Your task to perform on an android device: open app "Google Calendar" (install if not already installed) Image 0: 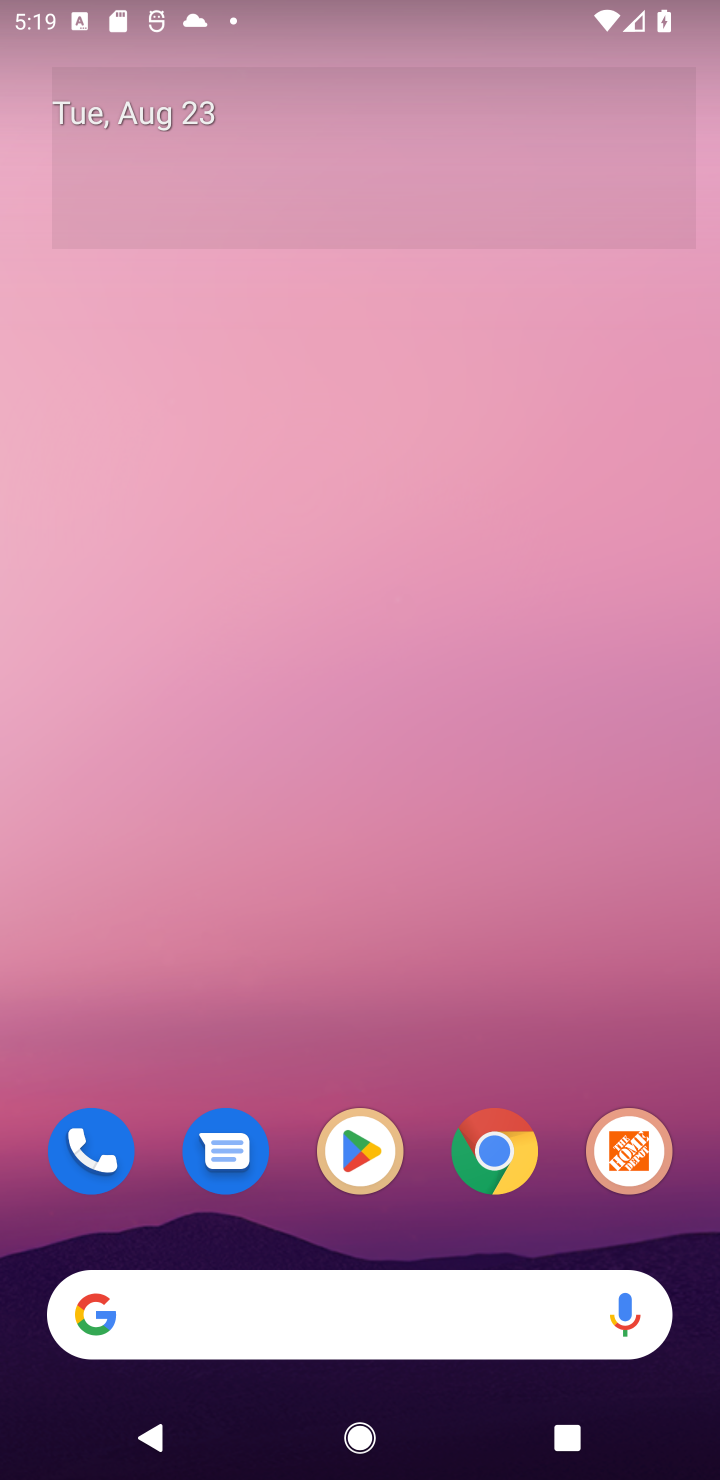
Step 0: press home button
Your task to perform on an android device: open app "Google Calendar" (install if not already installed) Image 1: 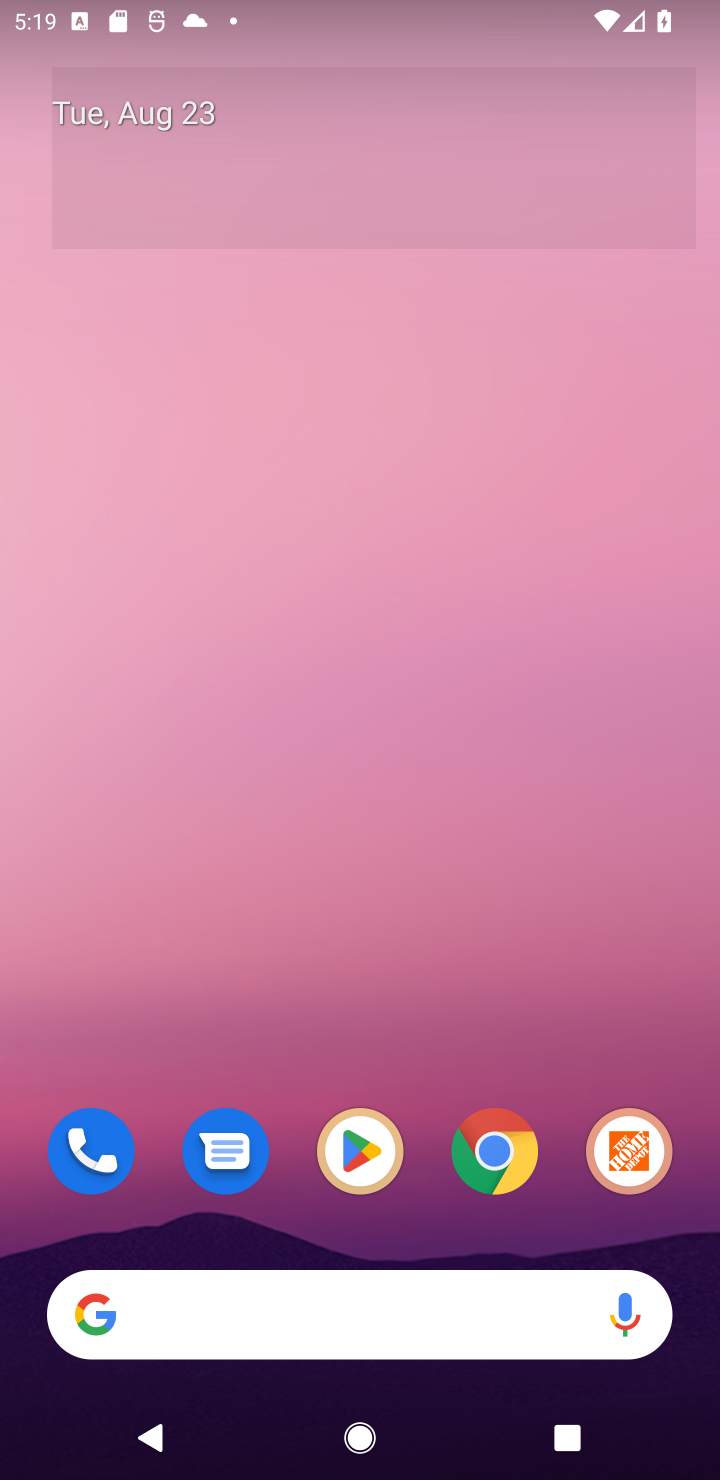
Step 1: click (366, 1160)
Your task to perform on an android device: open app "Google Calendar" (install if not already installed) Image 2: 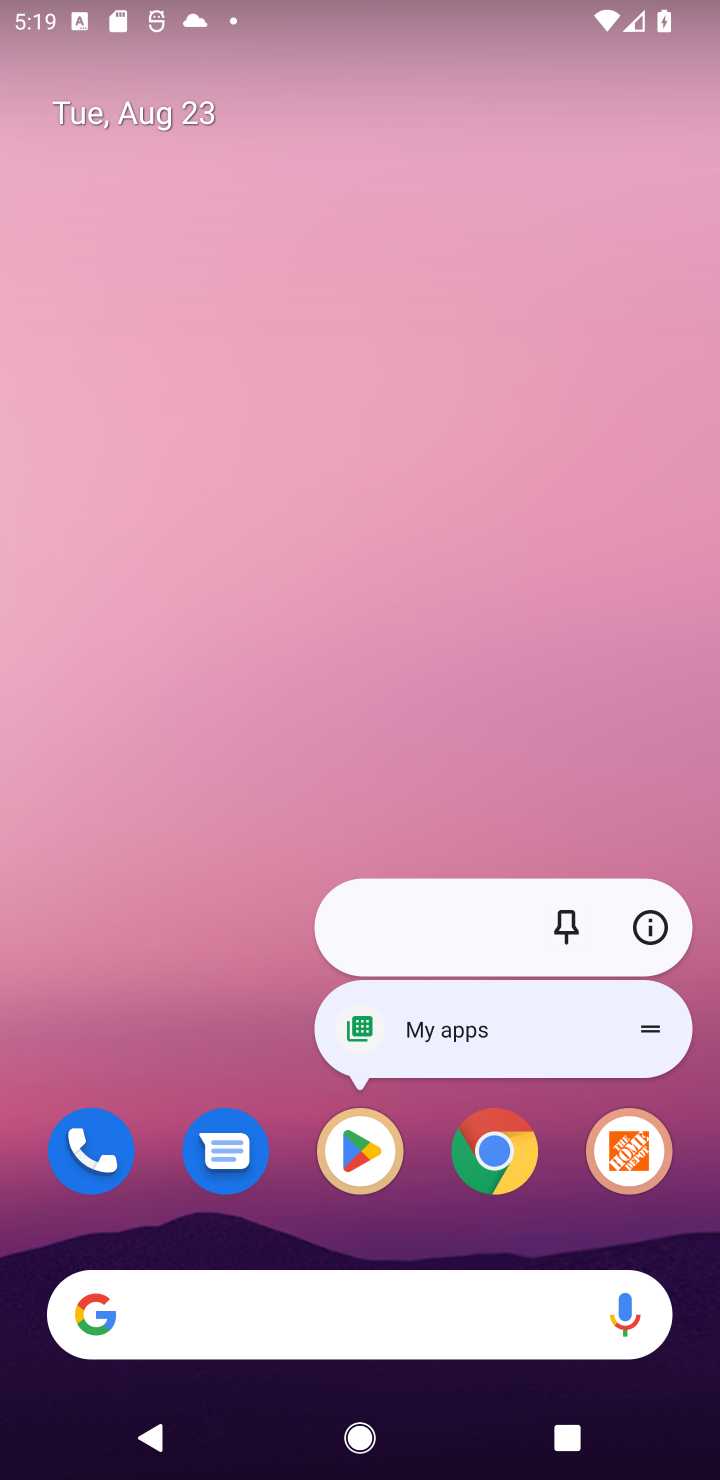
Step 2: click (366, 1163)
Your task to perform on an android device: open app "Google Calendar" (install if not already installed) Image 3: 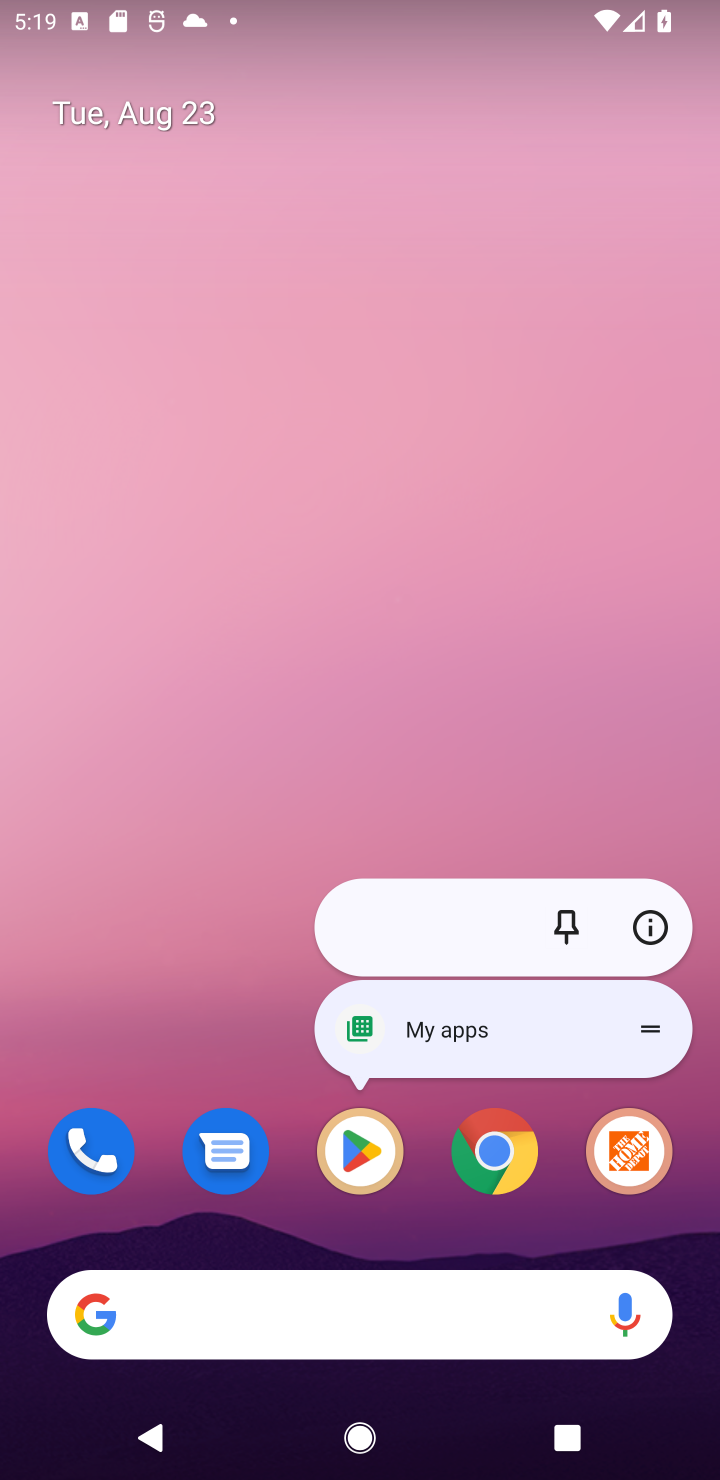
Step 3: click (353, 1163)
Your task to perform on an android device: open app "Google Calendar" (install if not already installed) Image 4: 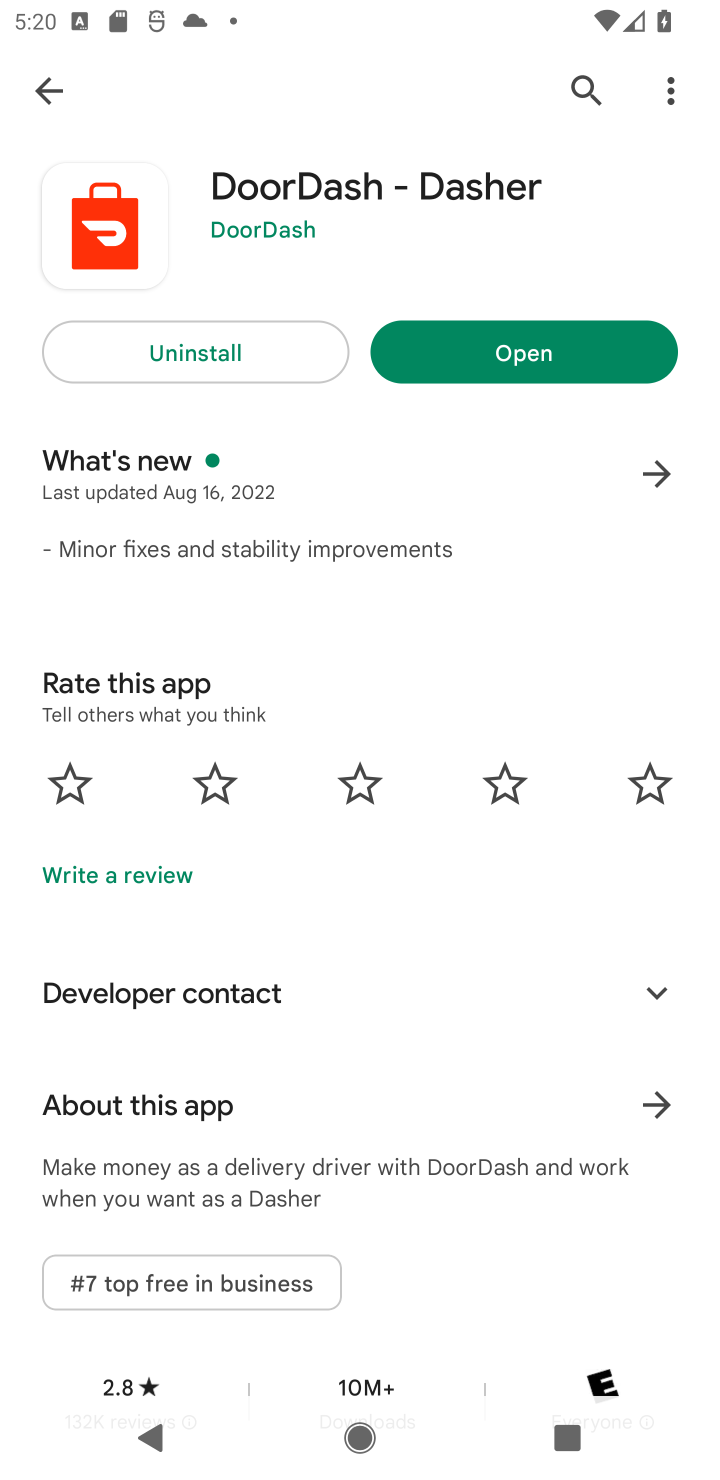
Step 4: click (582, 84)
Your task to perform on an android device: open app "Google Calendar" (install if not already installed) Image 5: 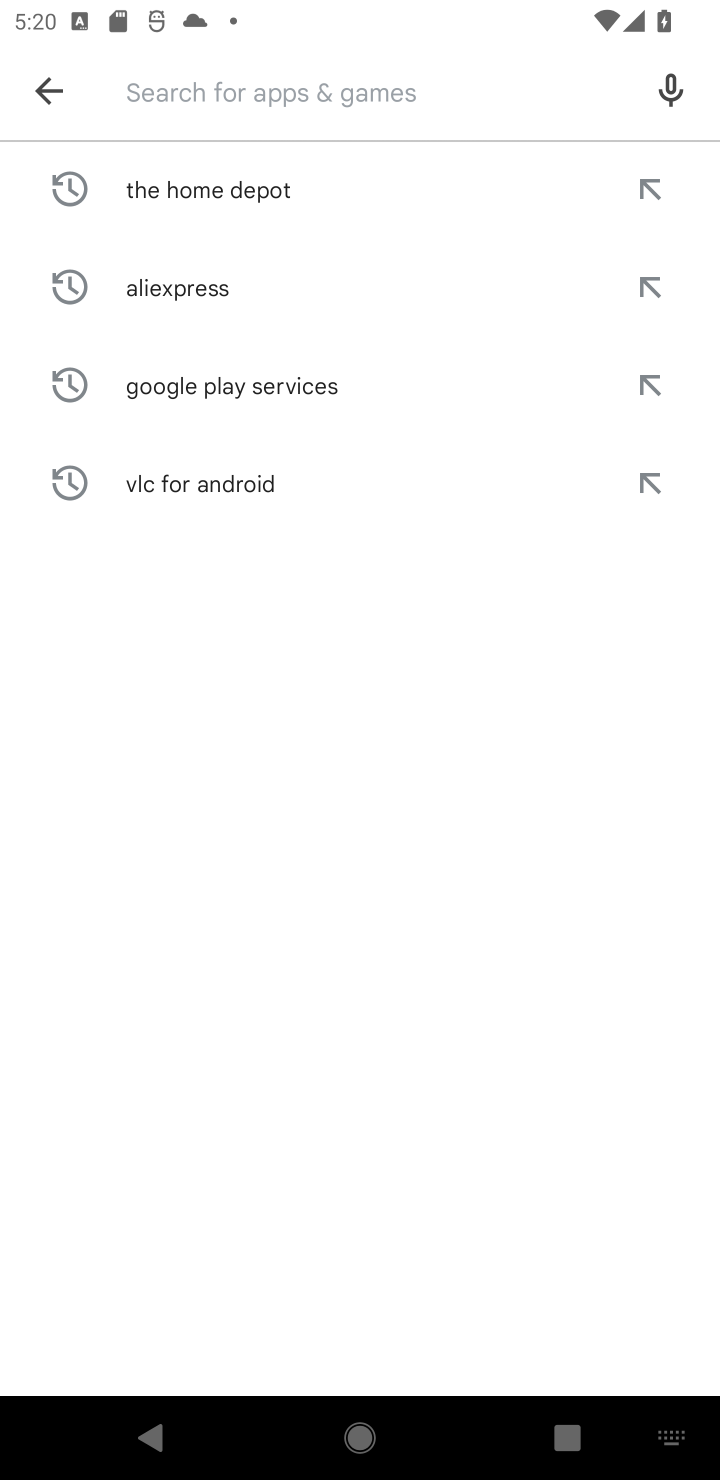
Step 5: type "Google Calendar"
Your task to perform on an android device: open app "Google Calendar" (install if not already installed) Image 6: 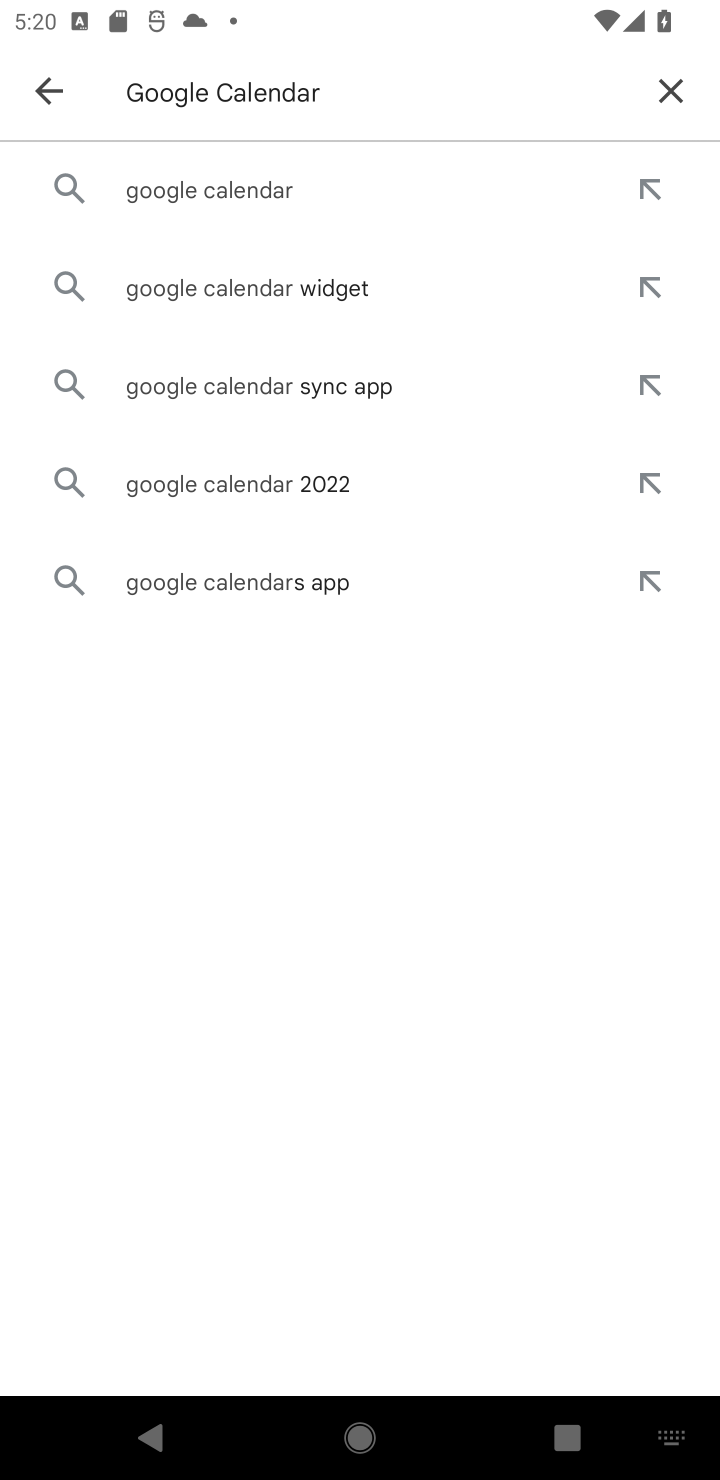
Step 6: click (258, 190)
Your task to perform on an android device: open app "Google Calendar" (install if not already installed) Image 7: 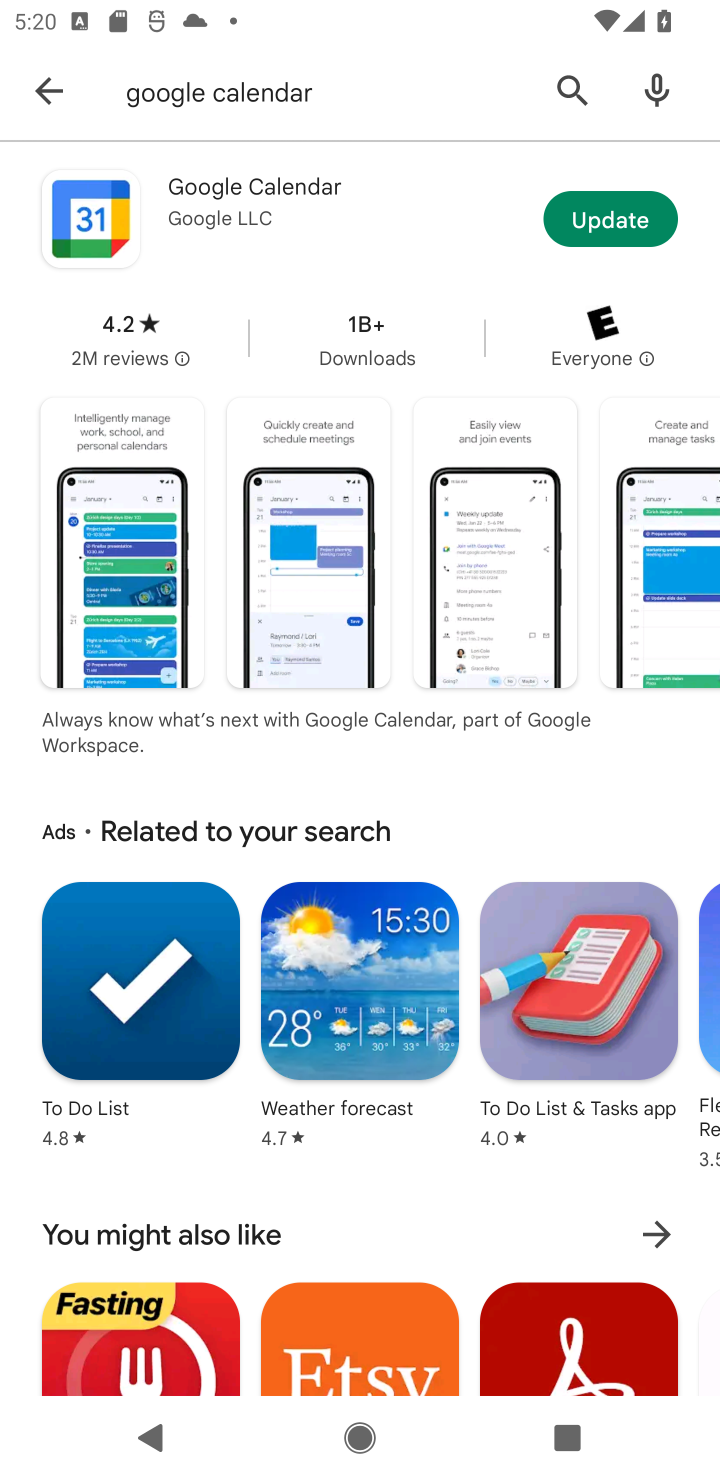
Step 7: click (182, 189)
Your task to perform on an android device: open app "Google Calendar" (install if not already installed) Image 8: 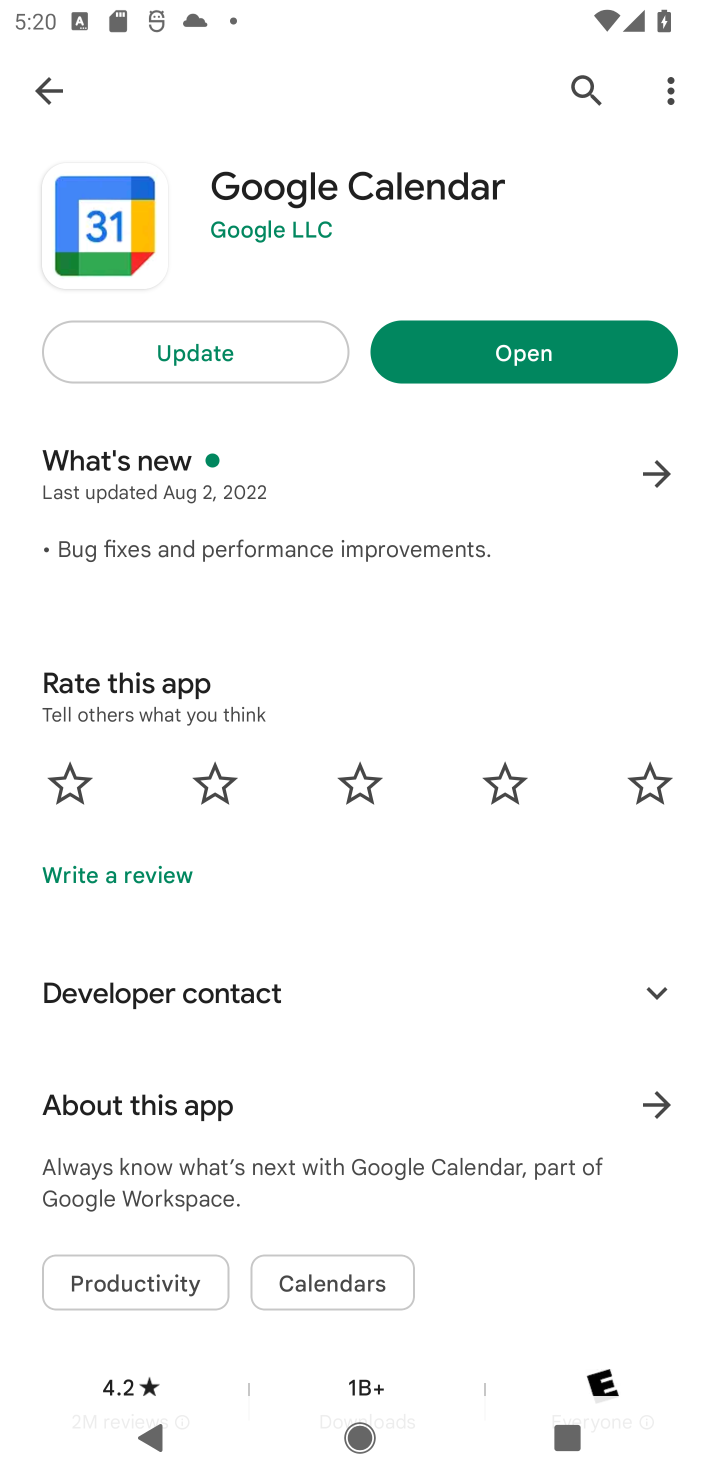
Step 8: click (576, 335)
Your task to perform on an android device: open app "Google Calendar" (install if not already installed) Image 9: 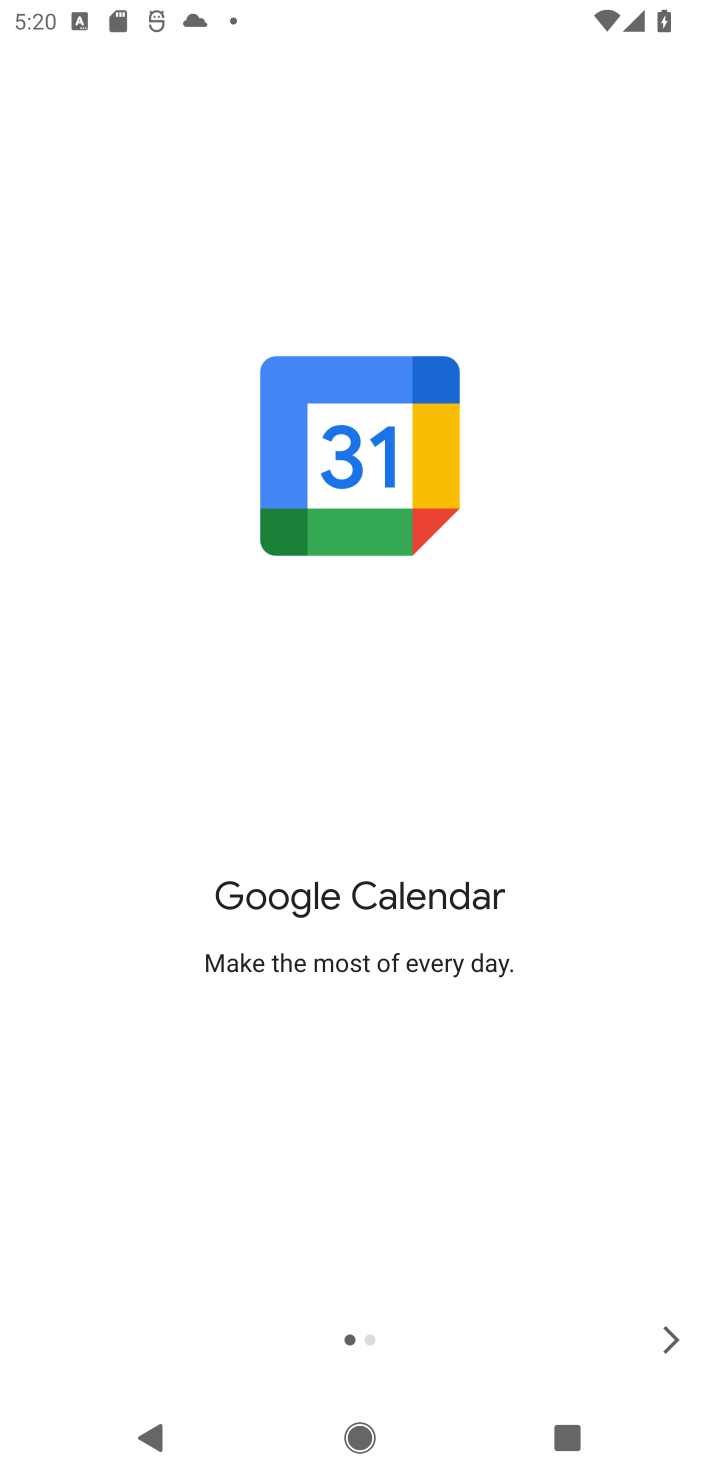
Step 9: click (672, 1353)
Your task to perform on an android device: open app "Google Calendar" (install if not already installed) Image 10: 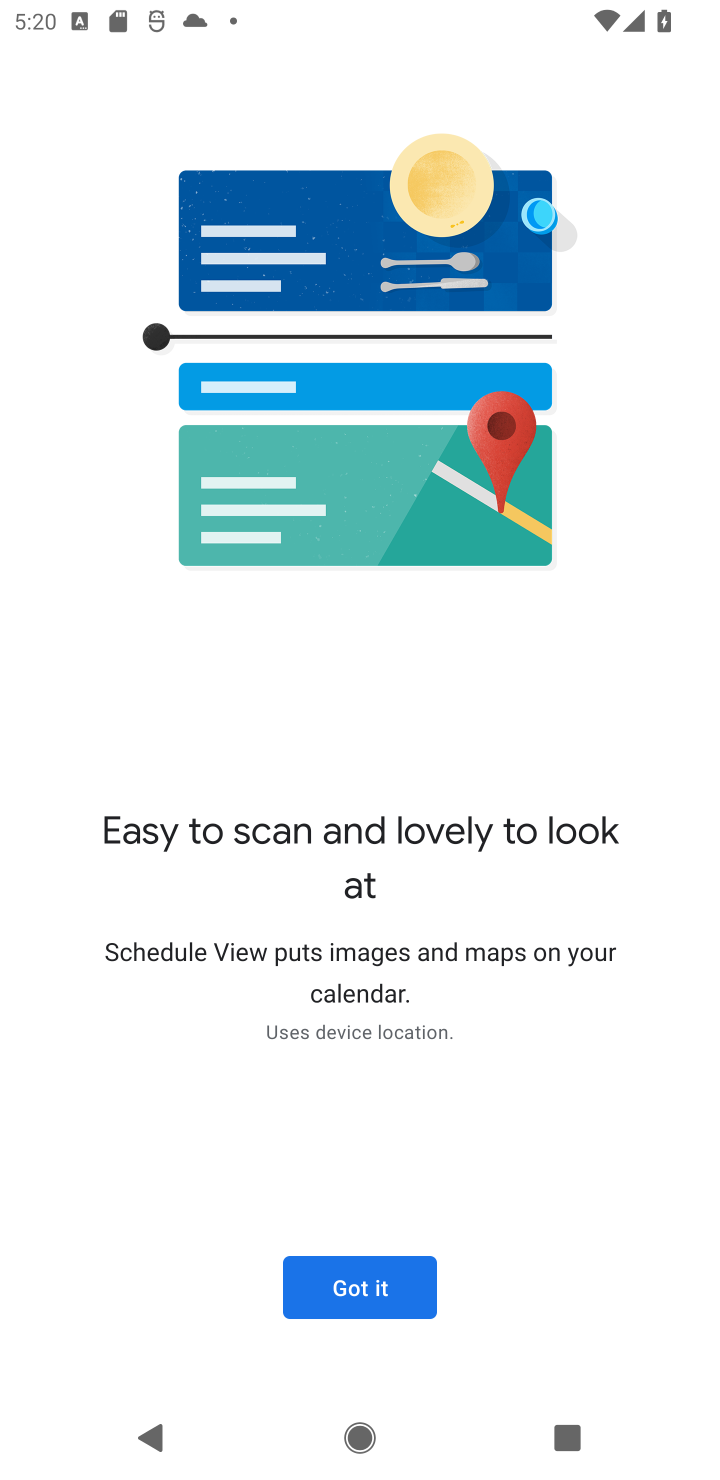
Step 10: click (355, 1281)
Your task to perform on an android device: open app "Google Calendar" (install if not already installed) Image 11: 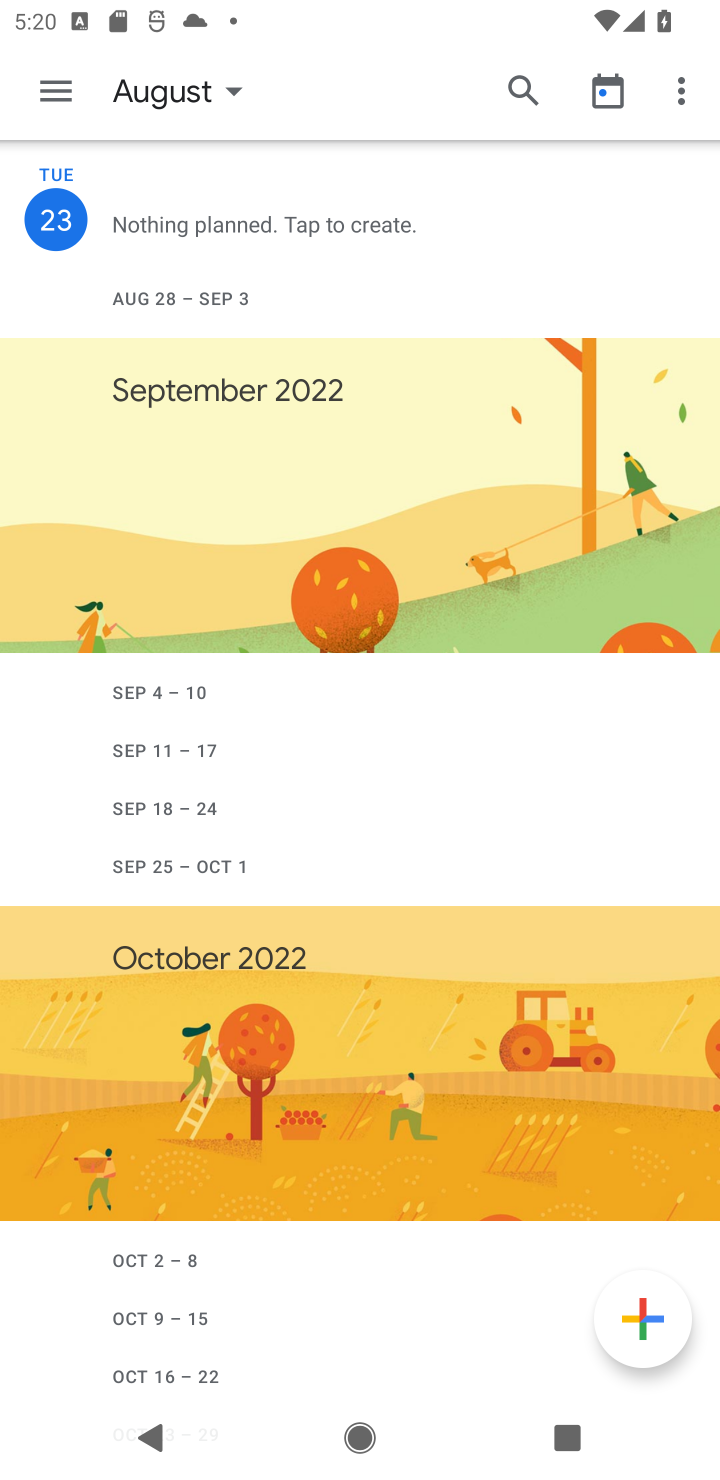
Step 11: task complete